Your task to perform on an android device: open app "Venmo" Image 0: 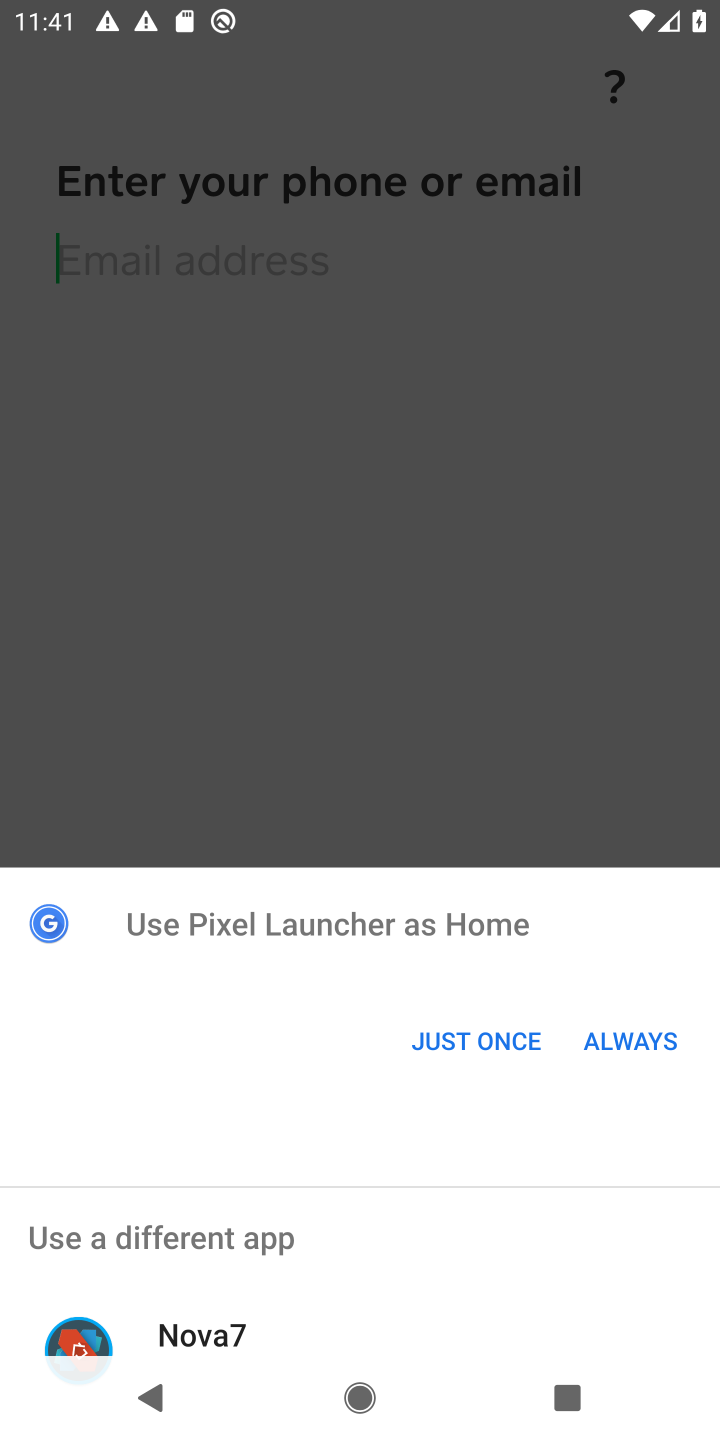
Step 0: press home button
Your task to perform on an android device: open app "Venmo" Image 1: 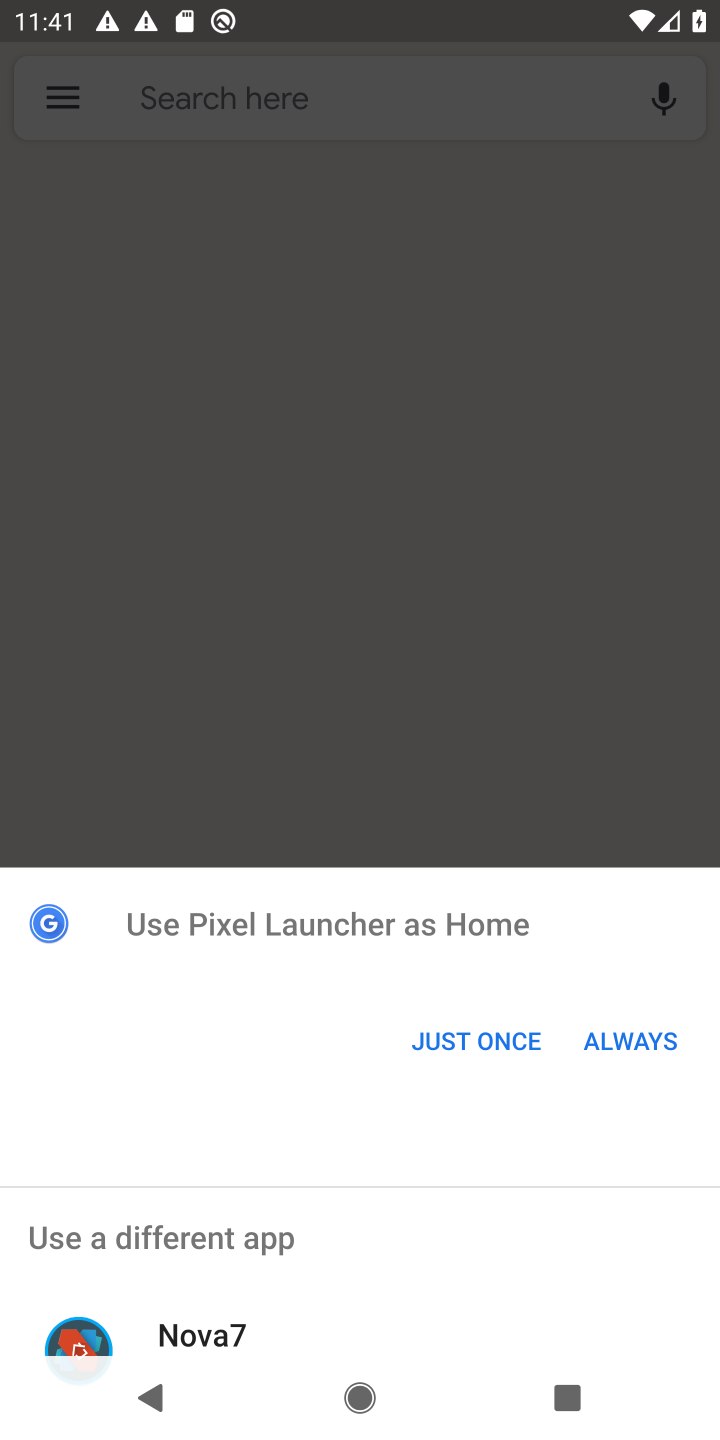
Step 1: click (471, 1057)
Your task to perform on an android device: open app "Venmo" Image 2: 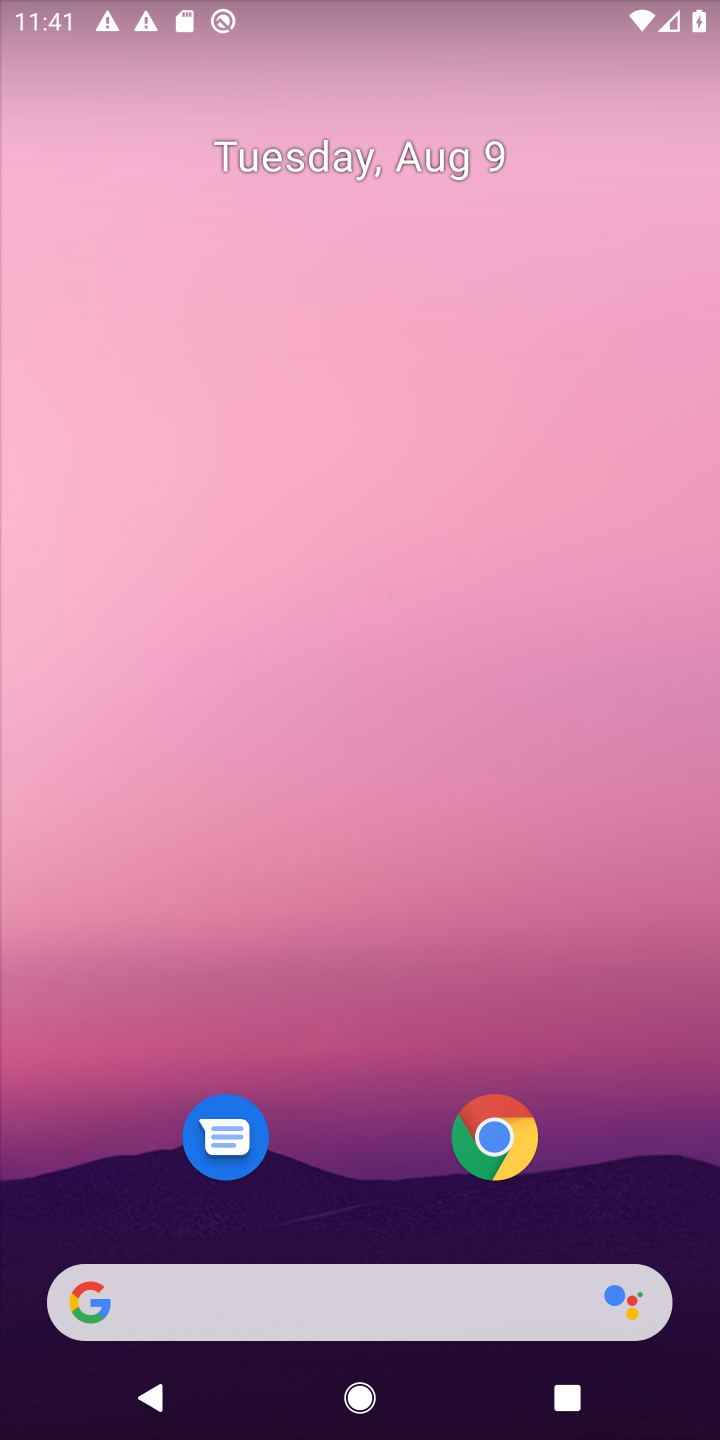
Step 2: press home button
Your task to perform on an android device: open app "Venmo" Image 3: 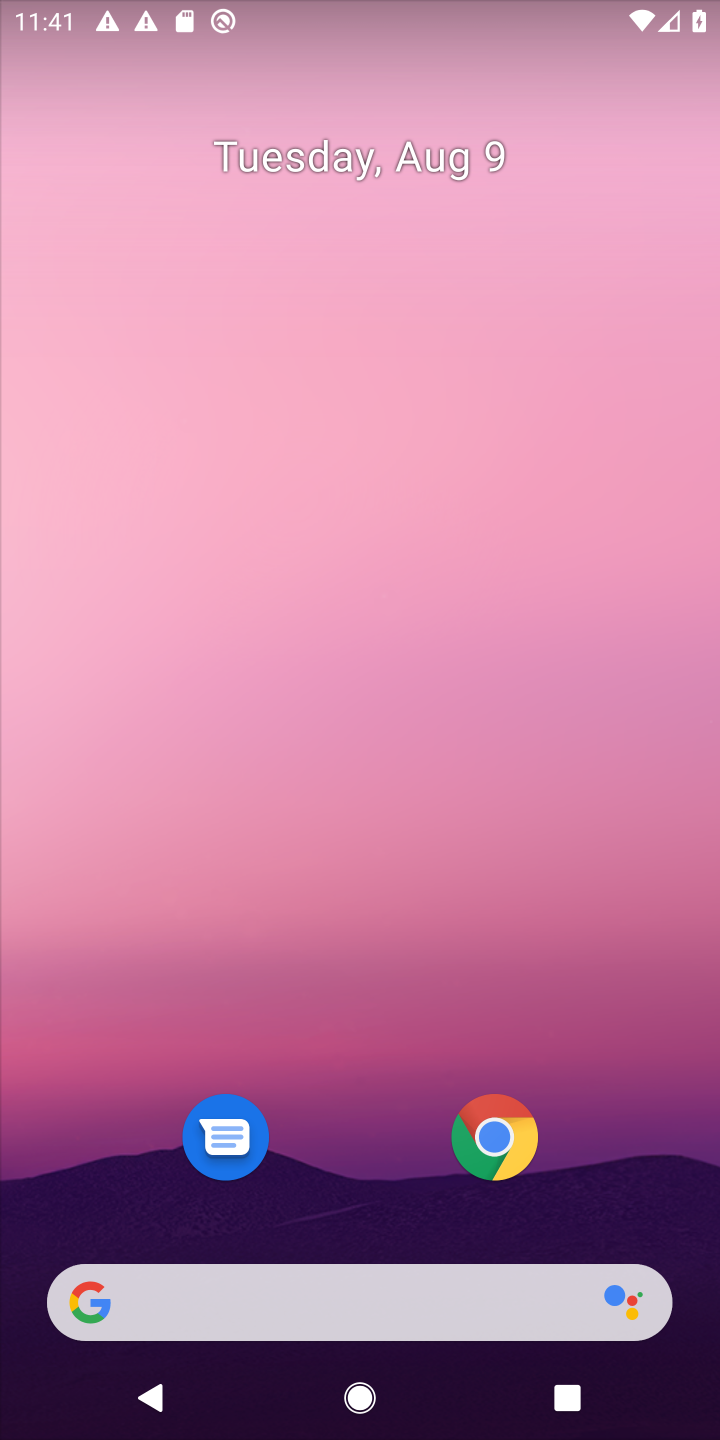
Step 3: drag from (365, 1218) to (413, 211)
Your task to perform on an android device: open app "Venmo" Image 4: 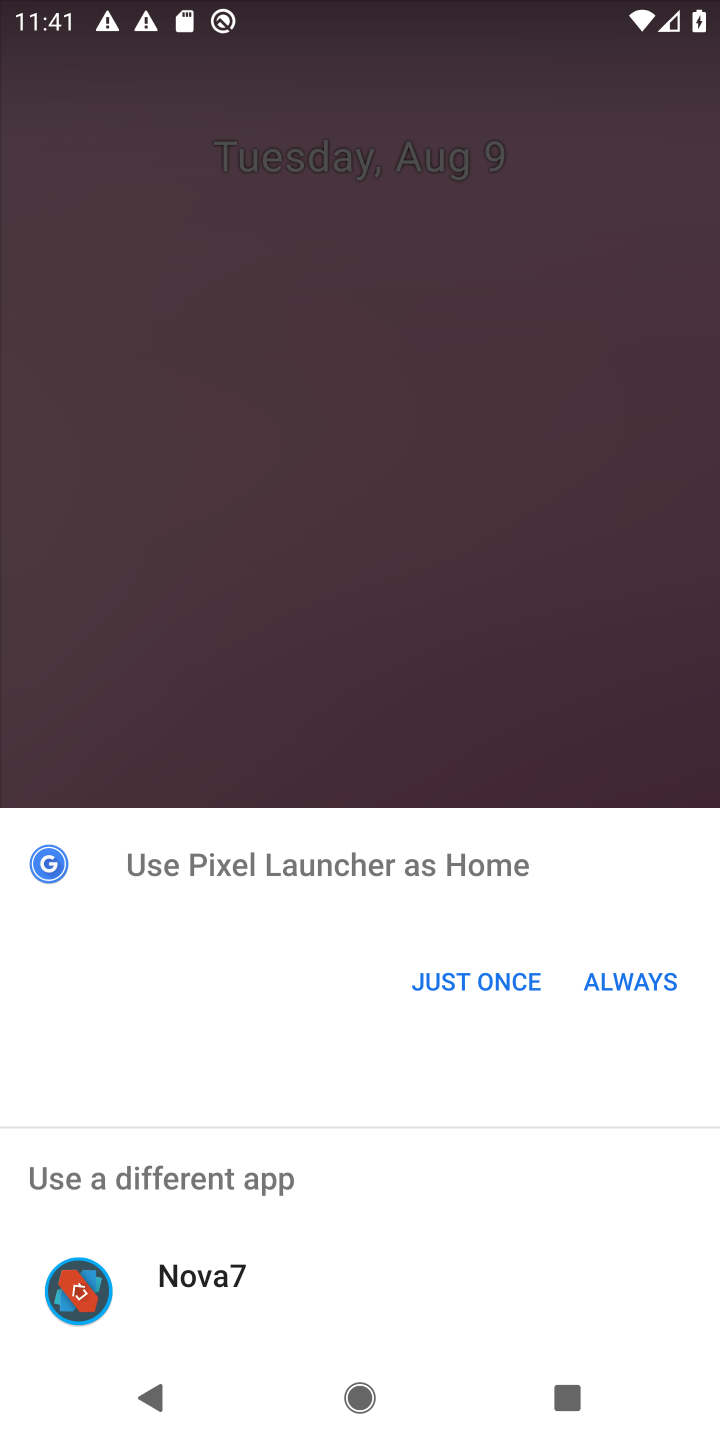
Step 4: click (453, 986)
Your task to perform on an android device: open app "Venmo" Image 5: 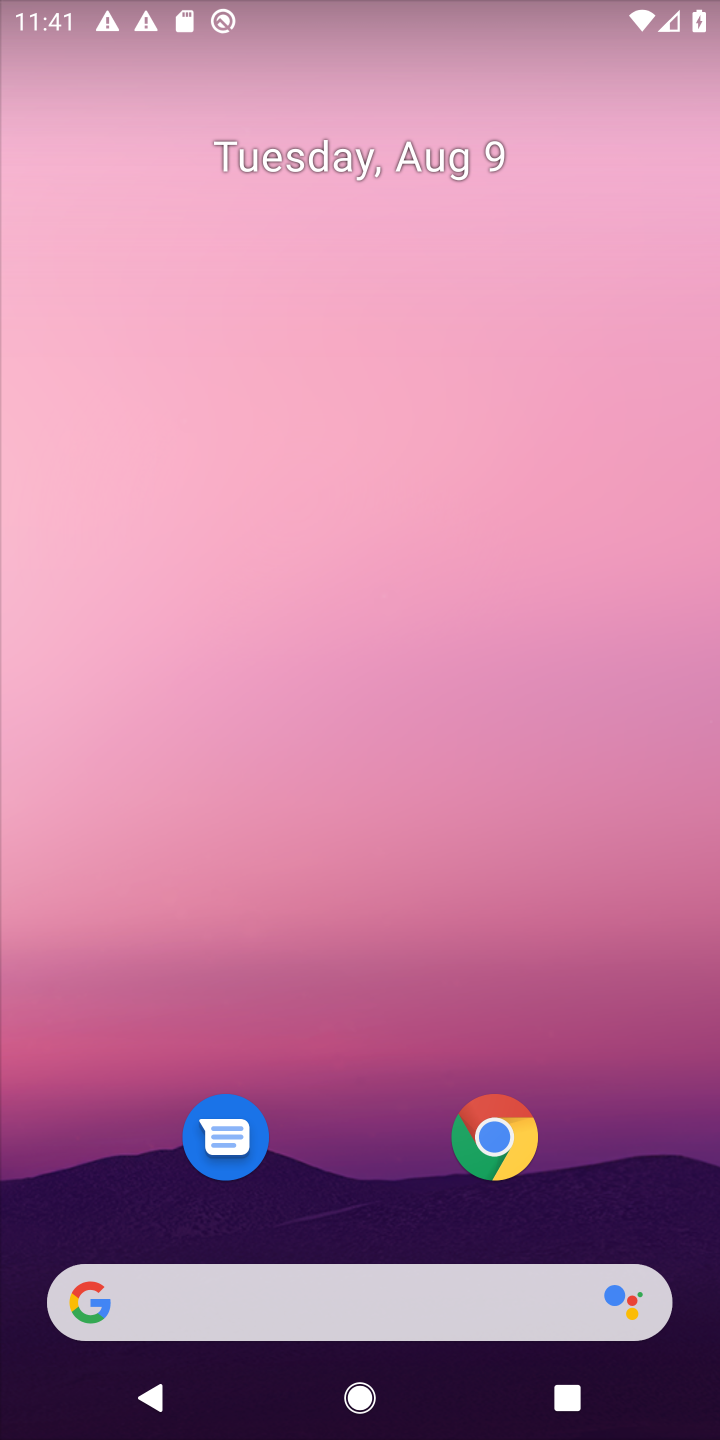
Step 5: drag from (371, 1139) to (460, 205)
Your task to perform on an android device: open app "Venmo" Image 6: 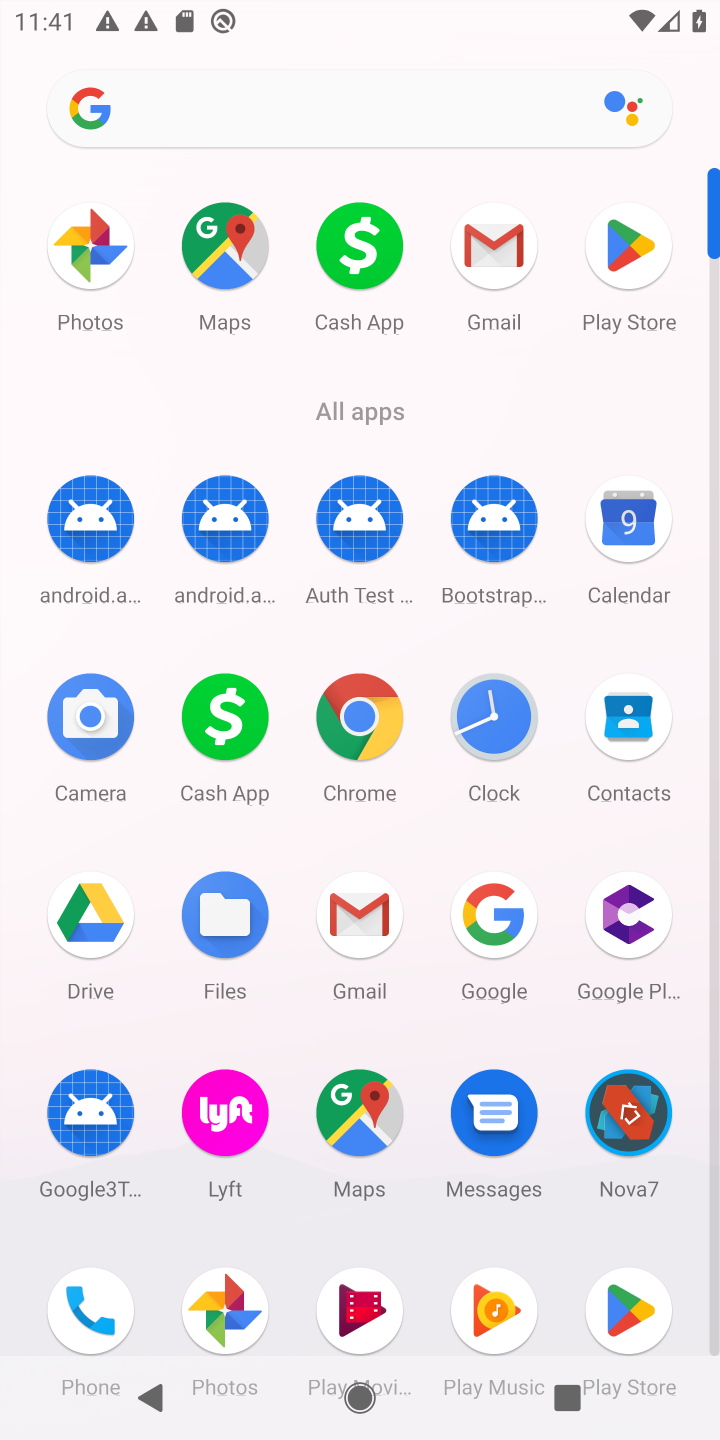
Step 6: click (615, 241)
Your task to perform on an android device: open app "Venmo" Image 7: 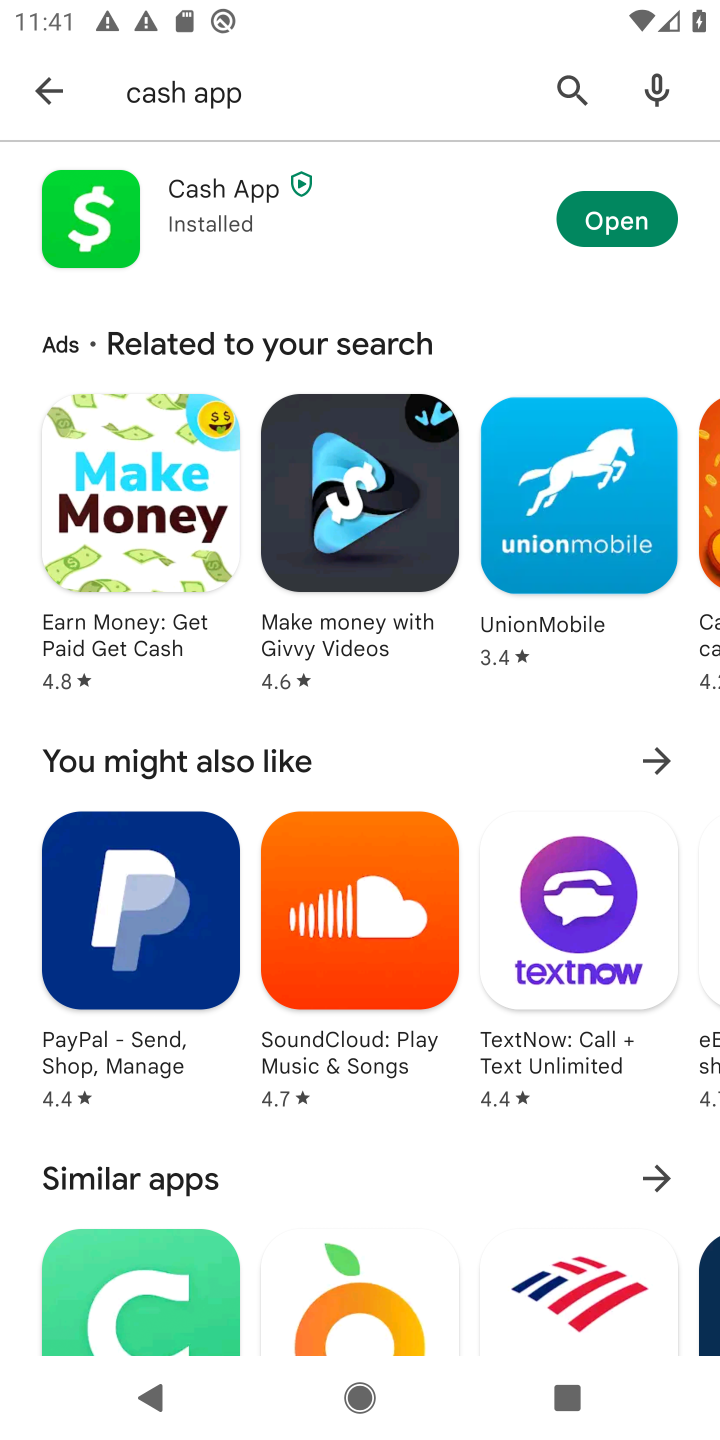
Step 7: click (577, 90)
Your task to perform on an android device: open app "Venmo" Image 8: 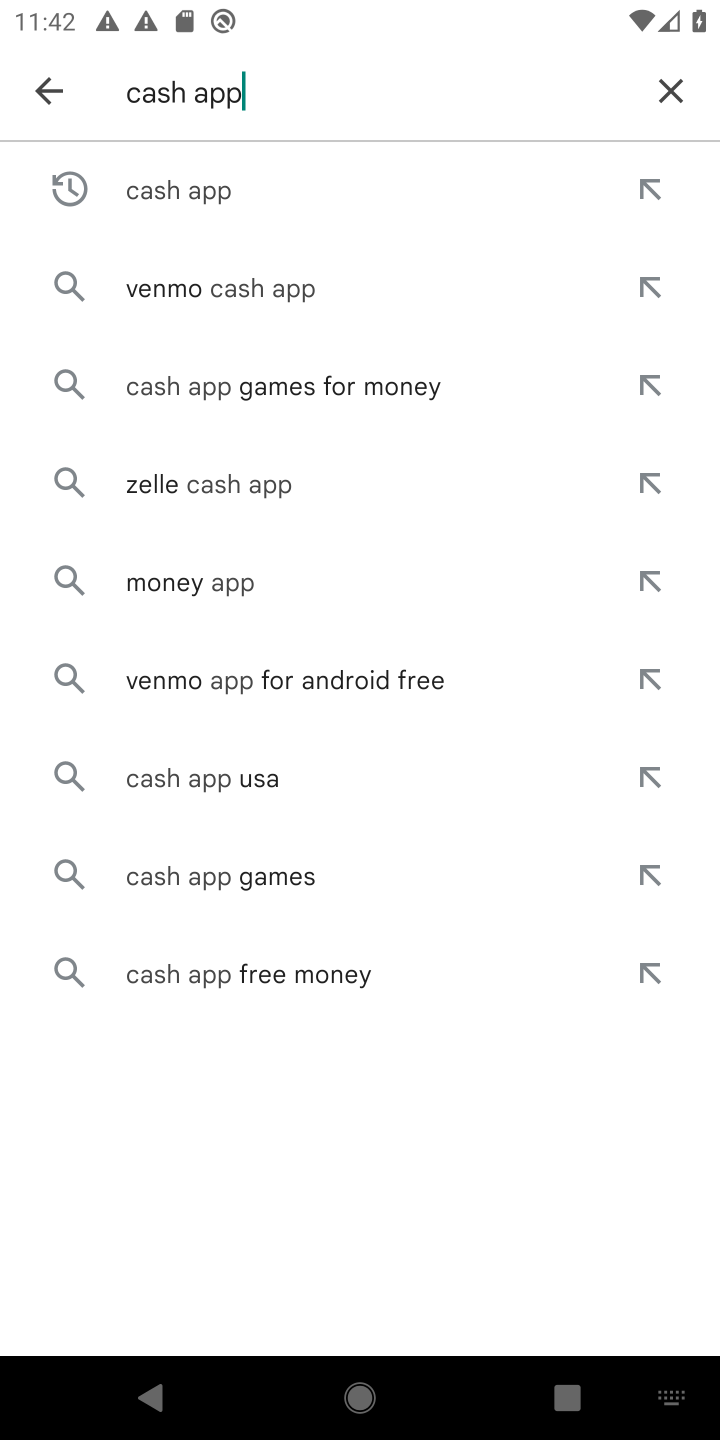
Step 8: click (661, 97)
Your task to perform on an android device: open app "Venmo" Image 9: 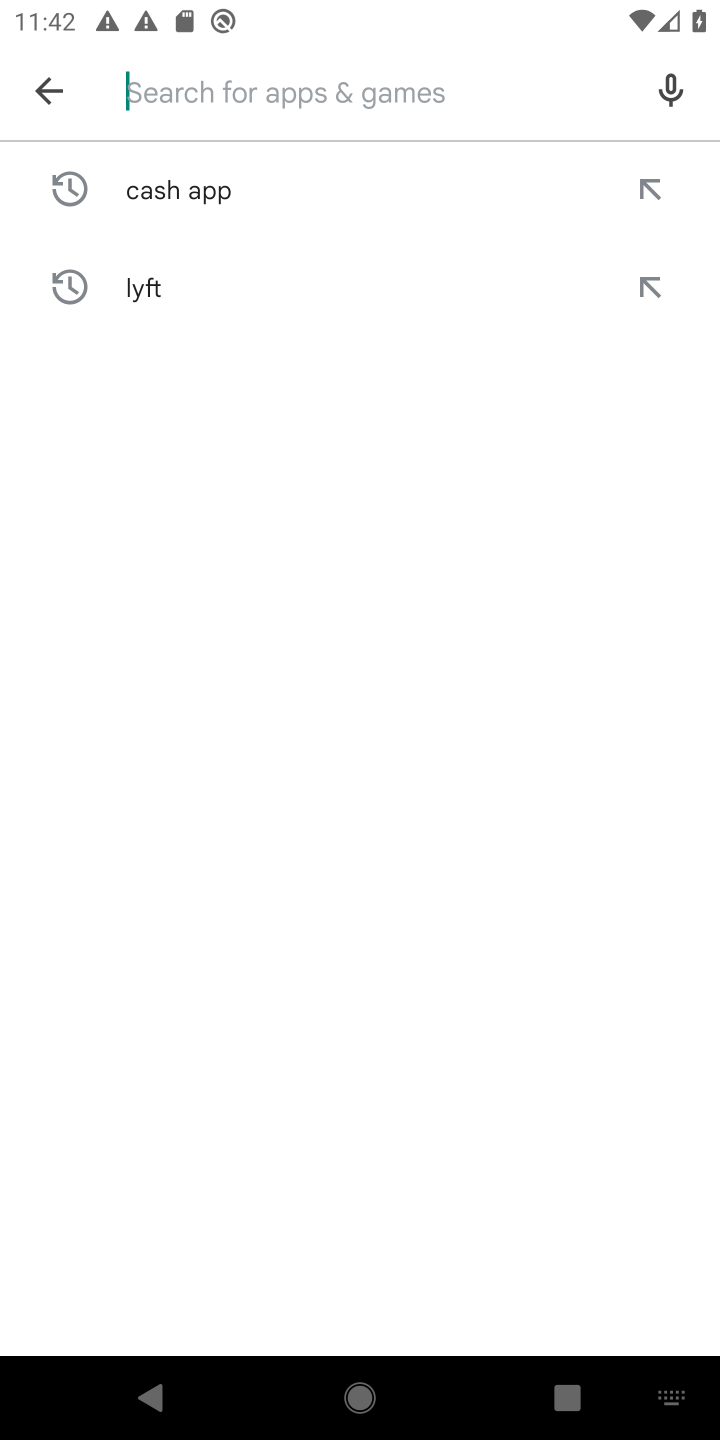
Step 9: type "venmo"
Your task to perform on an android device: open app "Venmo" Image 10: 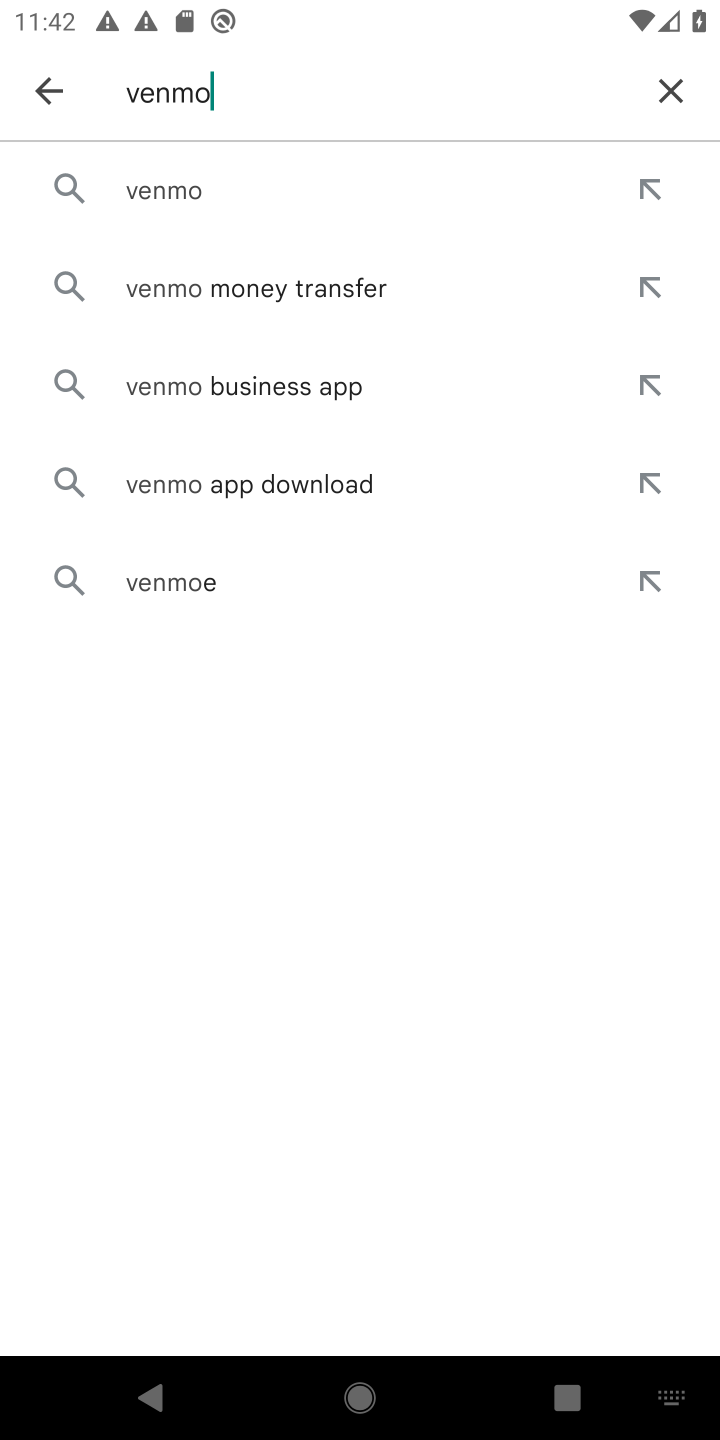
Step 10: click (218, 182)
Your task to perform on an android device: open app "Venmo" Image 11: 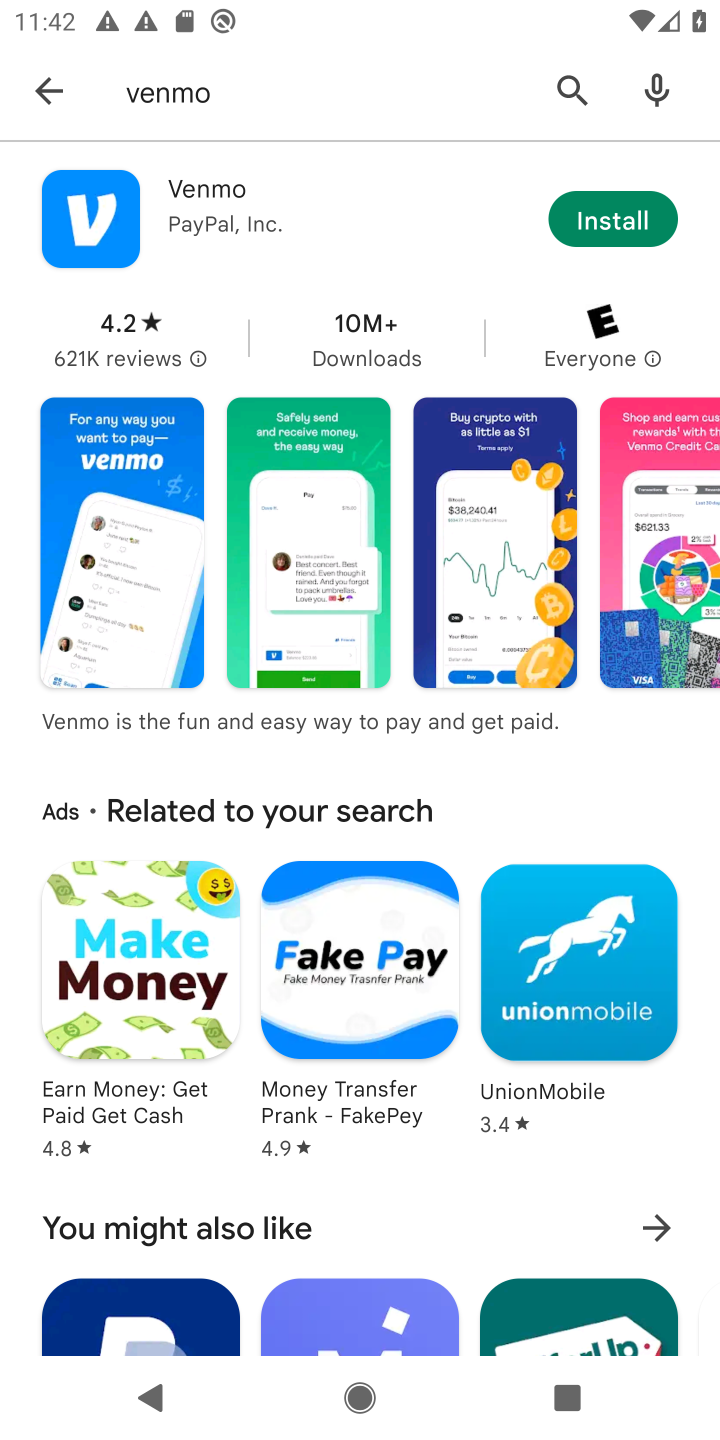
Step 11: task complete